Your task to perform on an android device: Go to accessibility settings Image 0: 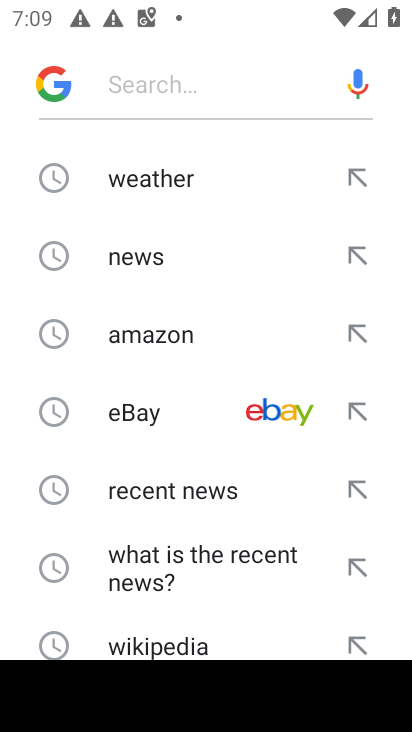
Step 0: press home button
Your task to perform on an android device: Go to accessibility settings Image 1: 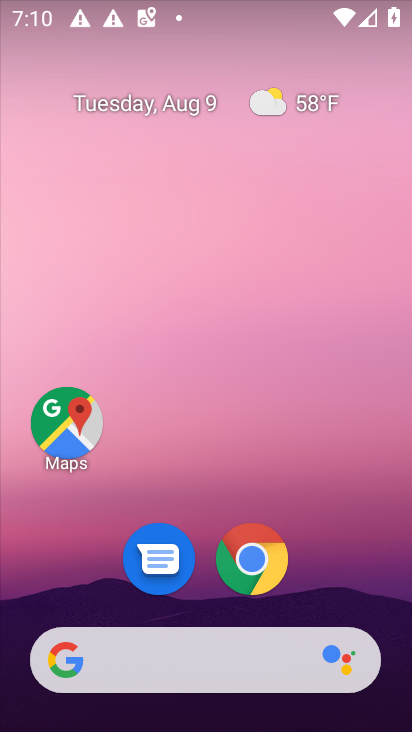
Step 1: click (205, 159)
Your task to perform on an android device: Go to accessibility settings Image 2: 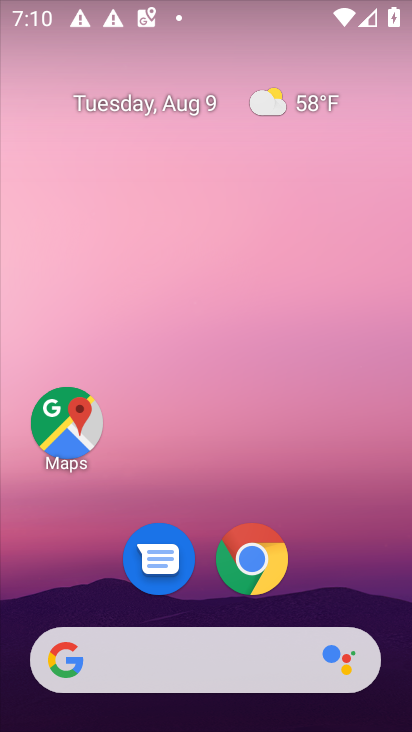
Step 2: drag from (204, 580) to (204, 210)
Your task to perform on an android device: Go to accessibility settings Image 3: 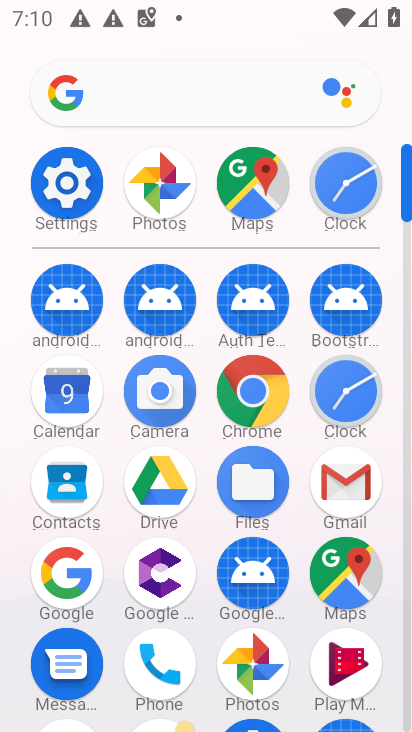
Step 3: click (62, 184)
Your task to perform on an android device: Go to accessibility settings Image 4: 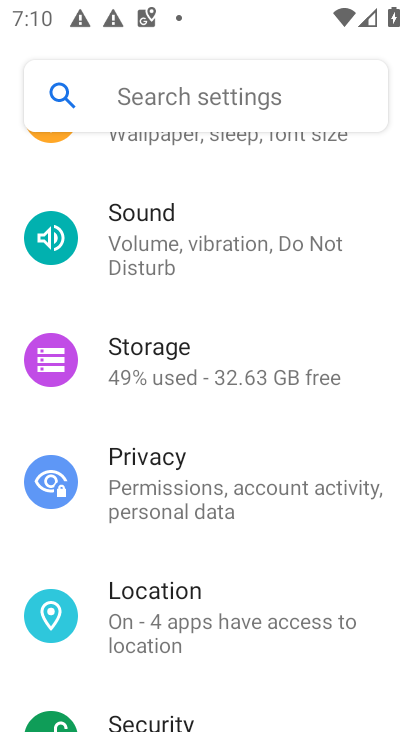
Step 4: click (220, 160)
Your task to perform on an android device: Go to accessibility settings Image 5: 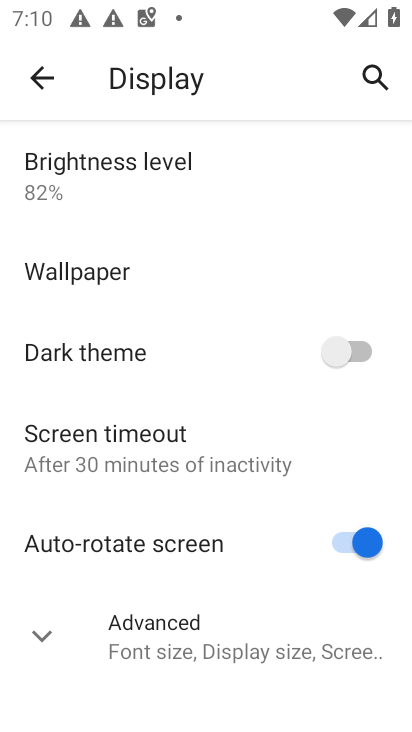
Step 5: click (34, 77)
Your task to perform on an android device: Go to accessibility settings Image 6: 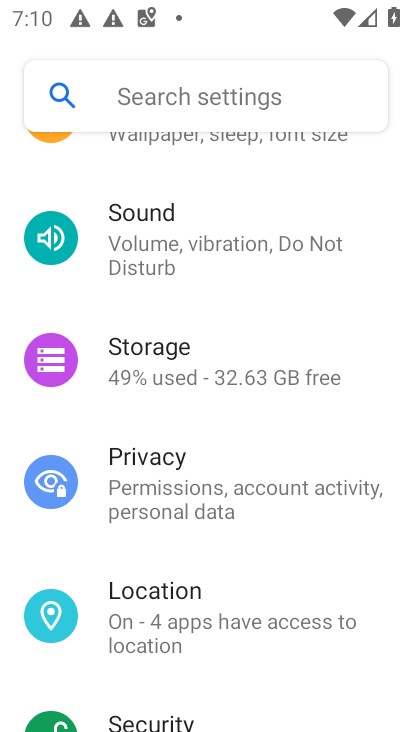
Step 6: drag from (188, 561) to (197, 254)
Your task to perform on an android device: Go to accessibility settings Image 7: 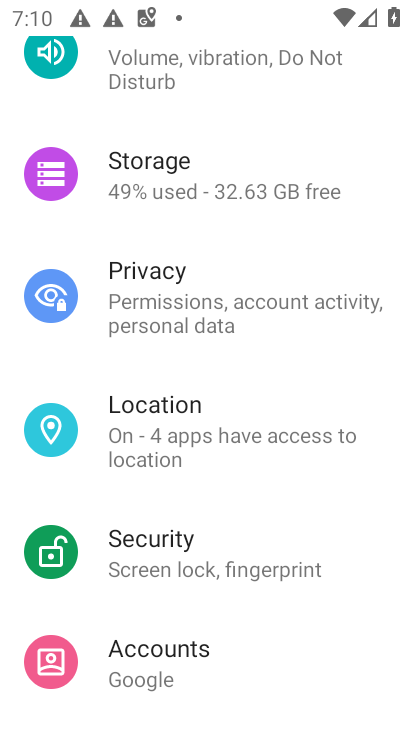
Step 7: drag from (192, 602) to (200, 290)
Your task to perform on an android device: Go to accessibility settings Image 8: 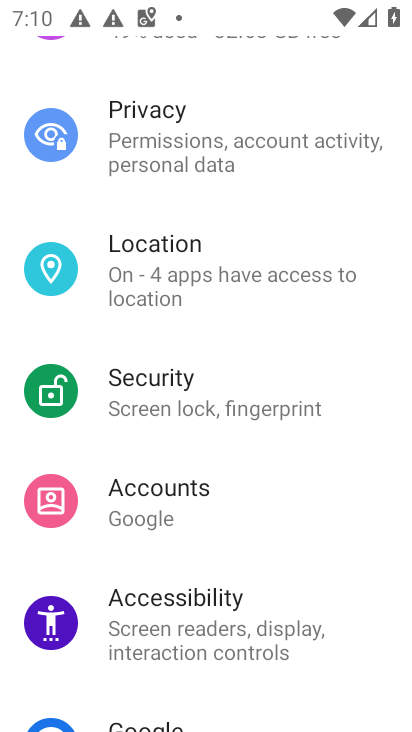
Step 8: click (160, 616)
Your task to perform on an android device: Go to accessibility settings Image 9: 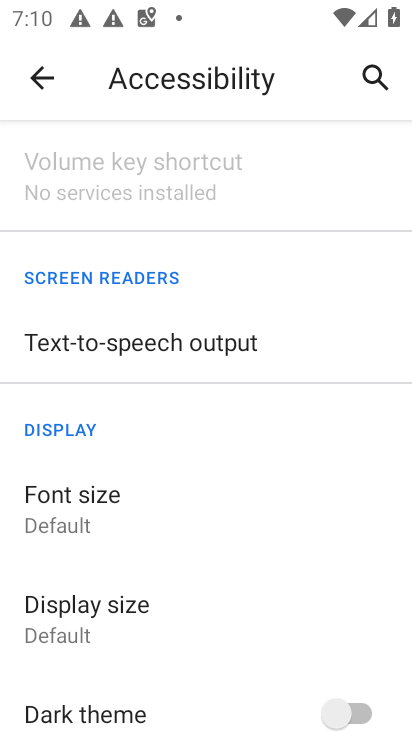
Step 9: task complete